Your task to perform on an android device: change notifications settings Image 0: 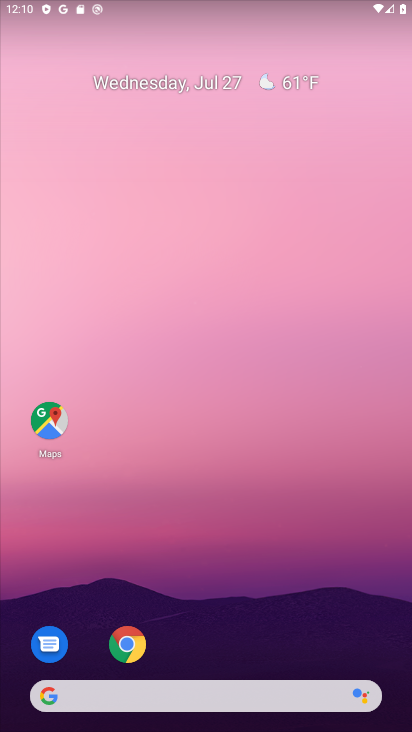
Step 0: drag from (219, 625) to (292, 61)
Your task to perform on an android device: change notifications settings Image 1: 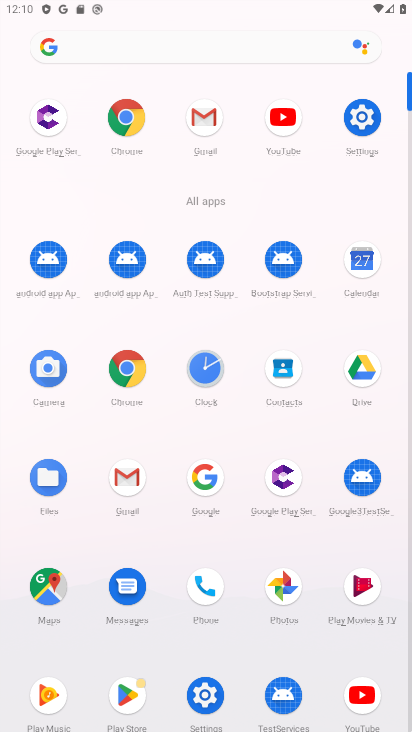
Step 1: drag from (241, 576) to (255, 88)
Your task to perform on an android device: change notifications settings Image 2: 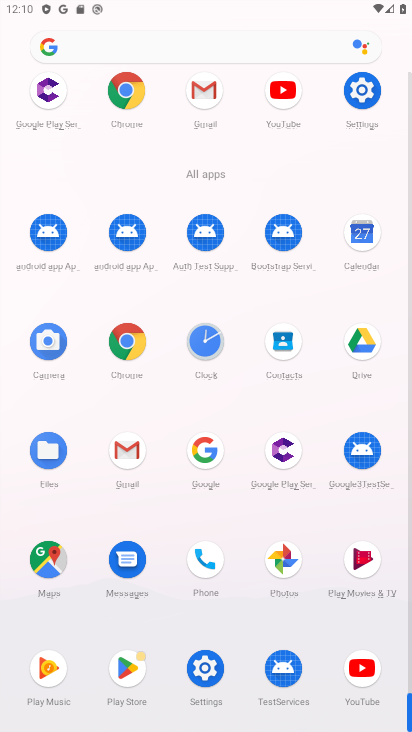
Step 2: drag from (218, 553) to (196, 216)
Your task to perform on an android device: change notifications settings Image 3: 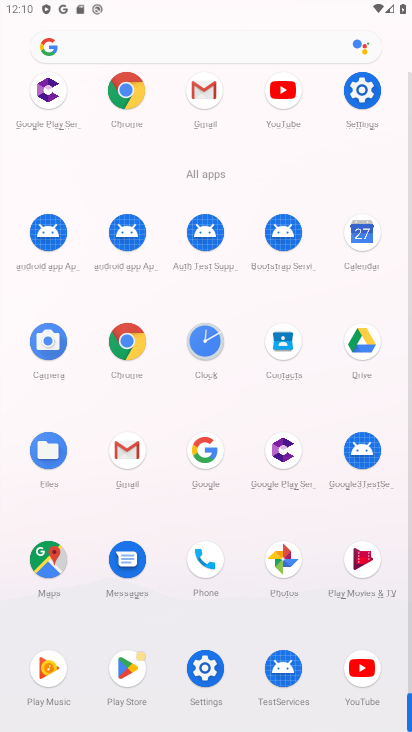
Step 3: click (198, 675)
Your task to perform on an android device: change notifications settings Image 4: 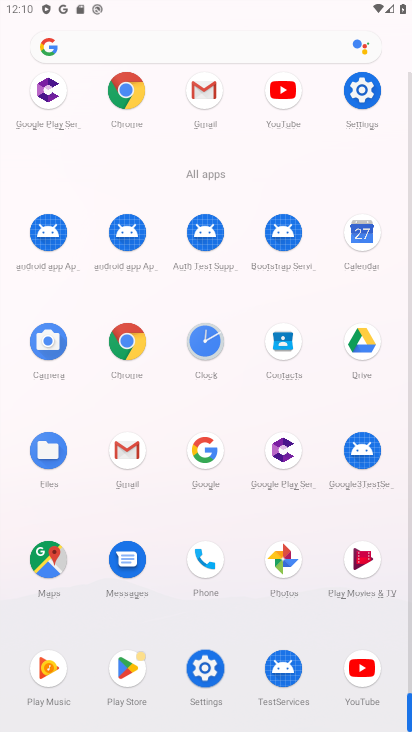
Step 4: click (198, 675)
Your task to perform on an android device: change notifications settings Image 5: 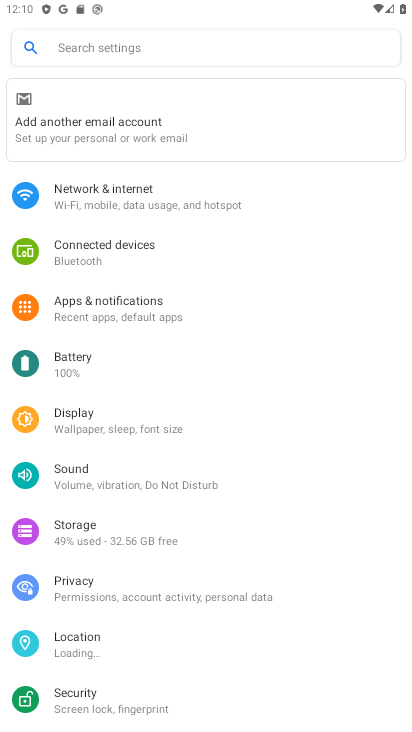
Step 5: click (187, 299)
Your task to perform on an android device: change notifications settings Image 6: 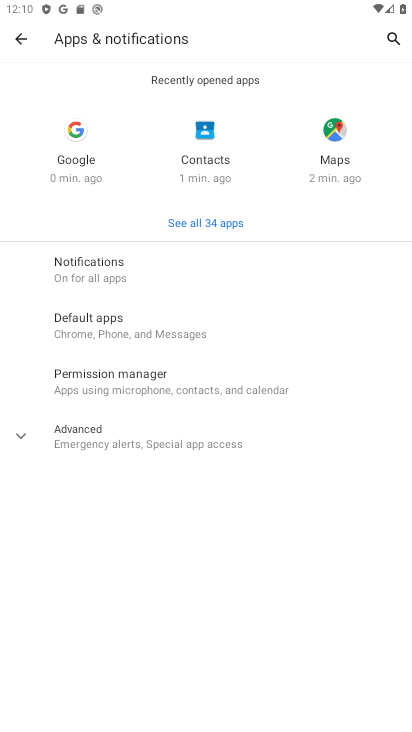
Step 6: click (153, 271)
Your task to perform on an android device: change notifications settings Image 7: 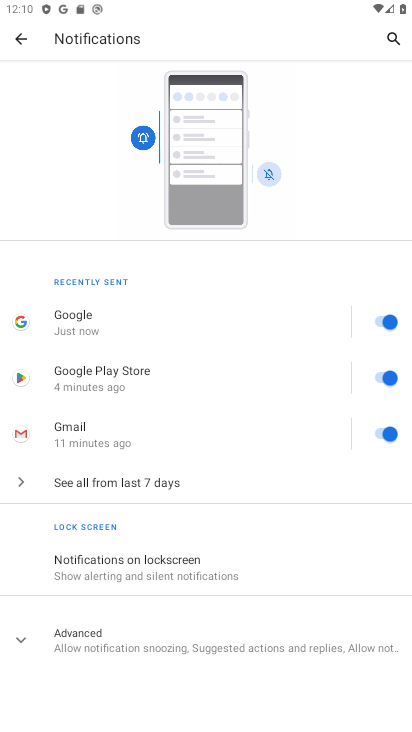
Step 7: drag from (190, 637) to (317, 304)
Your task to perform on an android device: change notifications settings Image 8: 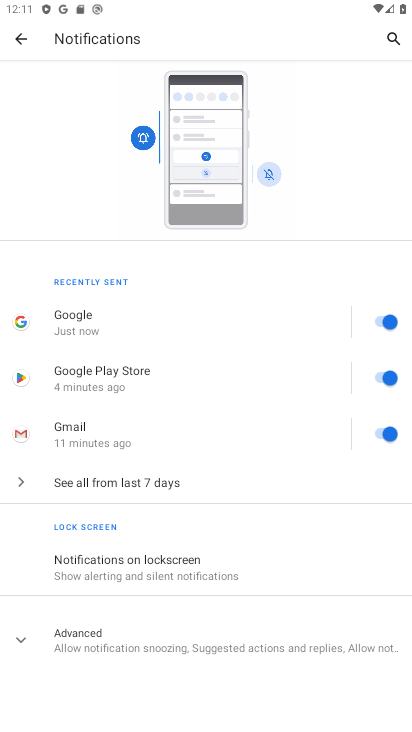
Step 8: drag from (219, 613) to (202, 378)
Your task to perform on an android device: change notifications settings Image 9: 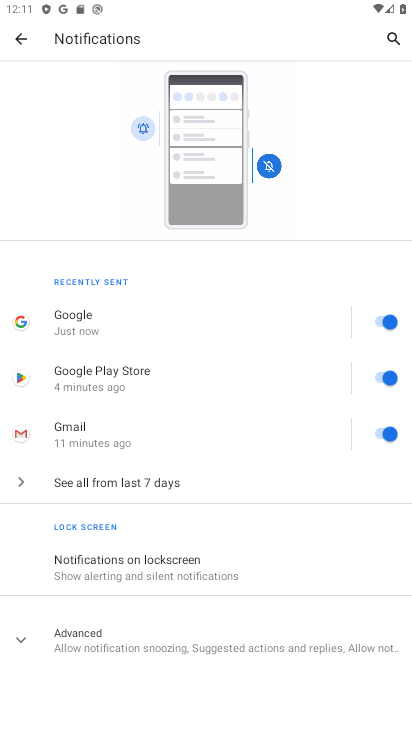
Step 9: click (101, 623)
Your task to perform on an android device: change notifications settings Image 10: 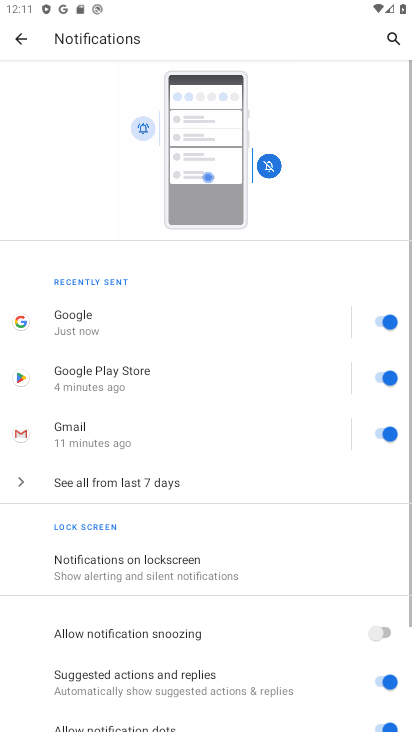
Step 10: click (371, 426)
Your task to perform on an android device: change notifications settings Image 11: 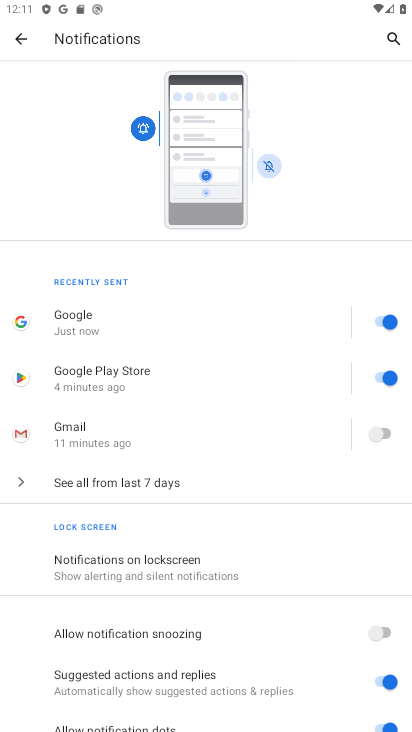
Step 11: task complete